Your task to perform on an android device: Open location settings Image 0: 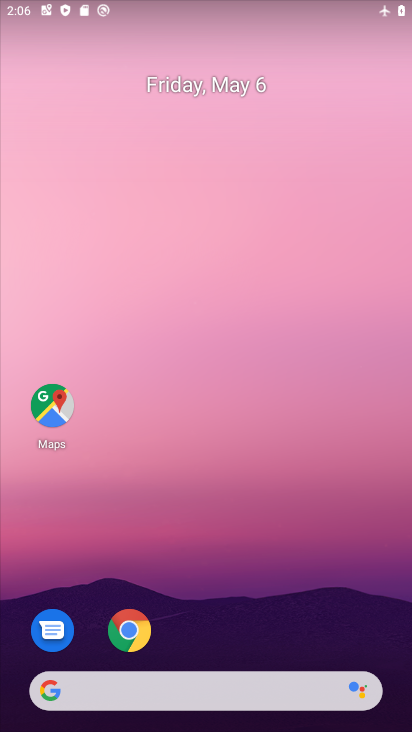
Step 0: drag from (149, 679) to (16, 493)
Your task to perform on an android device: Open location settings Image 1: 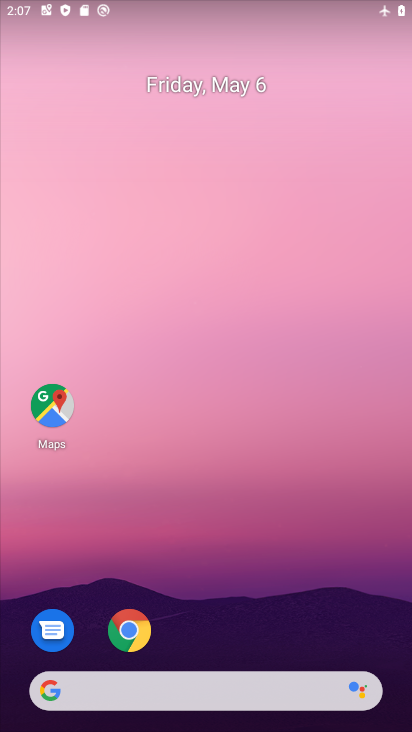
Step 1: click (204, 678)
Your task to perform on an android device: Open location settings Image 2: 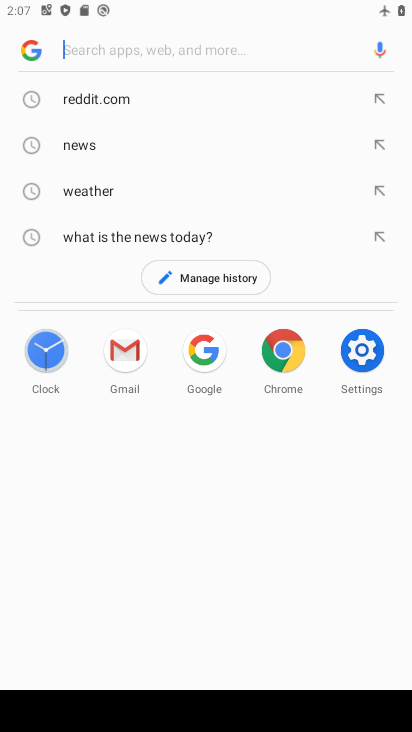
Step 2: click (367, 355)
Your task to perform on an android device: Open location settings Image 3: 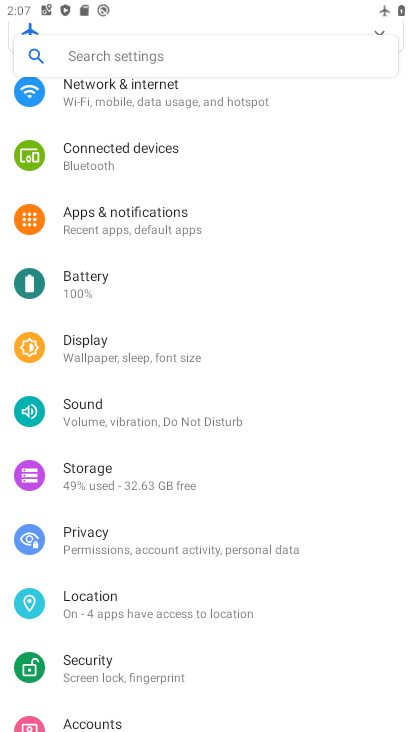
Step 3: click (94, 606)
Your task to perform on an android device: Open location settings Image 4: 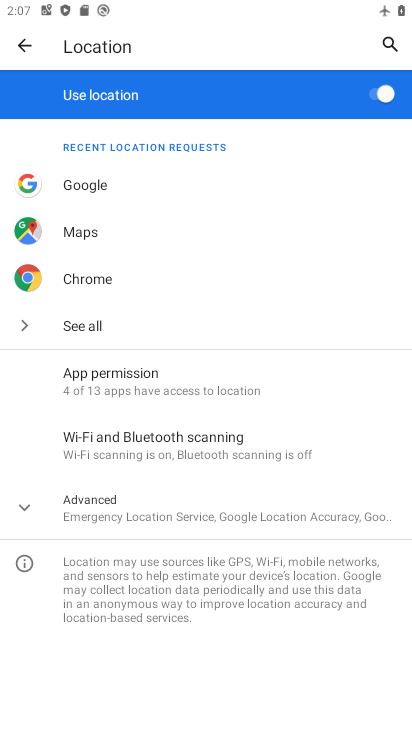
Step 4: task complete